Your task to perform on an android device: Open Google Chrome Image 0: 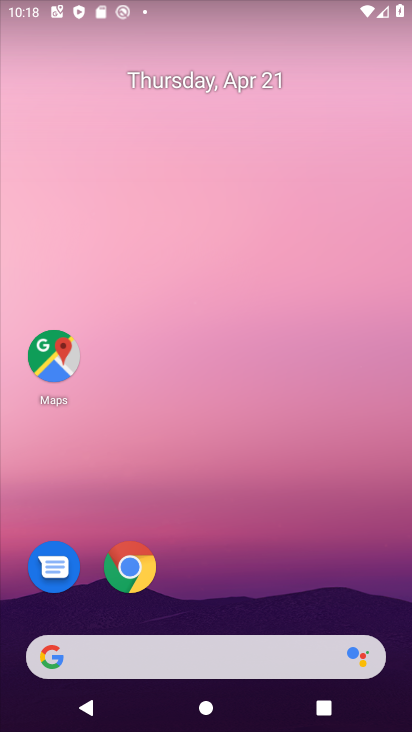
Step 0: click (134, 558)
Your task to perform on an android device: Open Google Chrome Image 1: 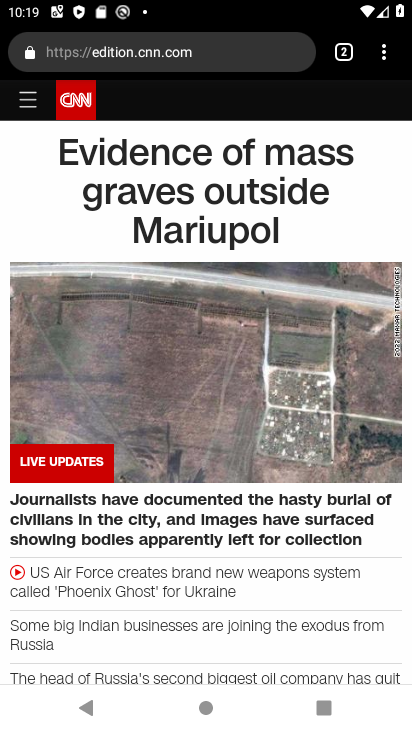
Step 1: task complete